Your task to perform on an android device: open app "Calculator" Image 0: 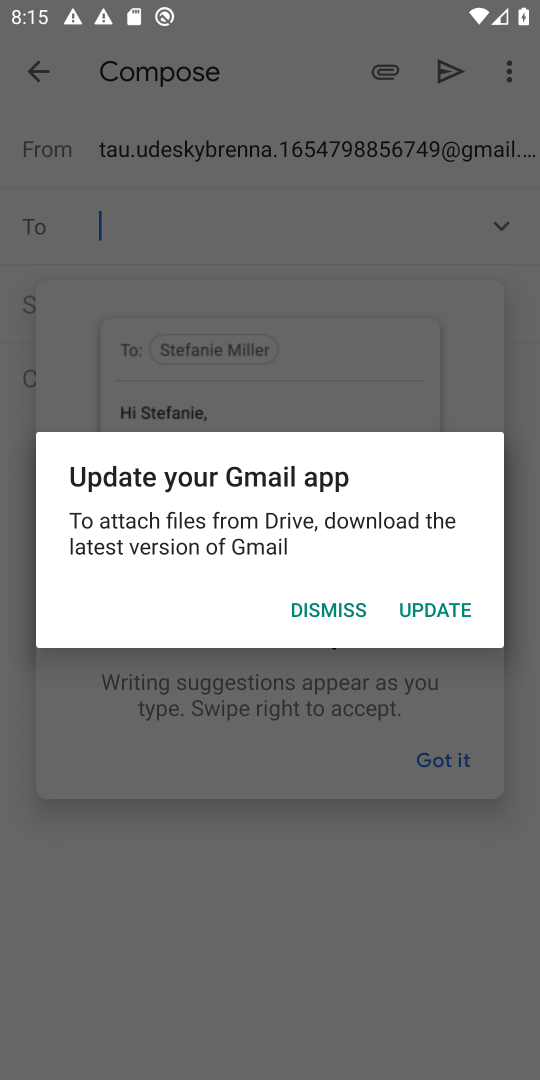
Step 0: press home button
Your task to perform on an android device: open app "Calculator" Image 1: 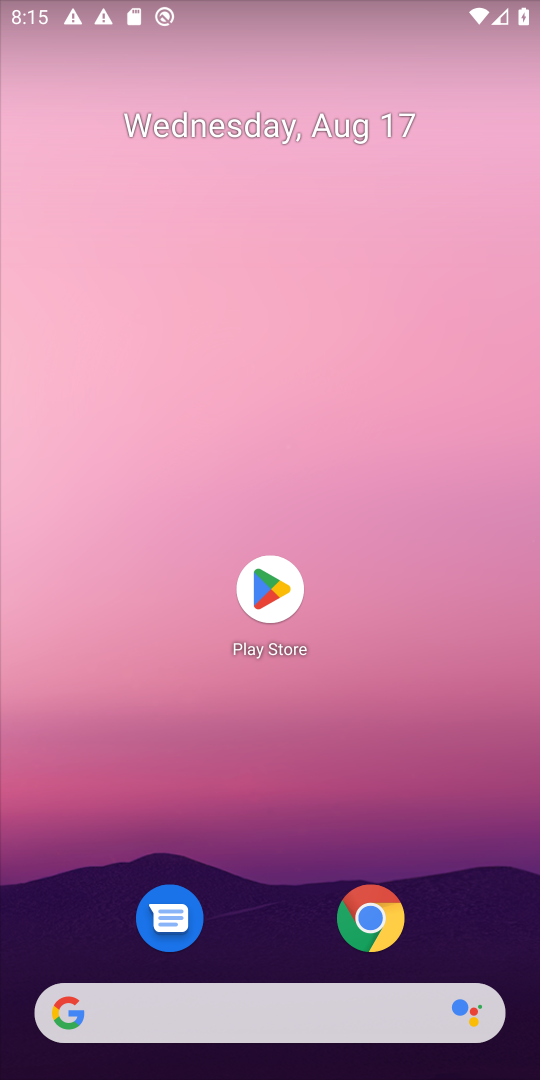
Step 1: click (276, 588)
Your task to perform on an android device: open app "Calculator" Image 2: 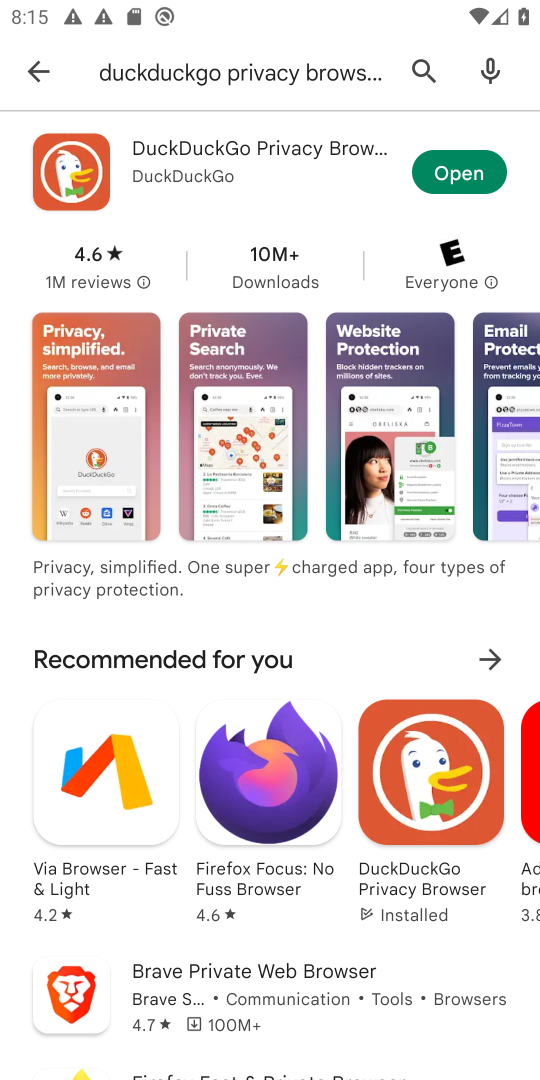
Step 2: click (429, 69)
Your task to perform on an android device: open app "Calculator" Image 3: 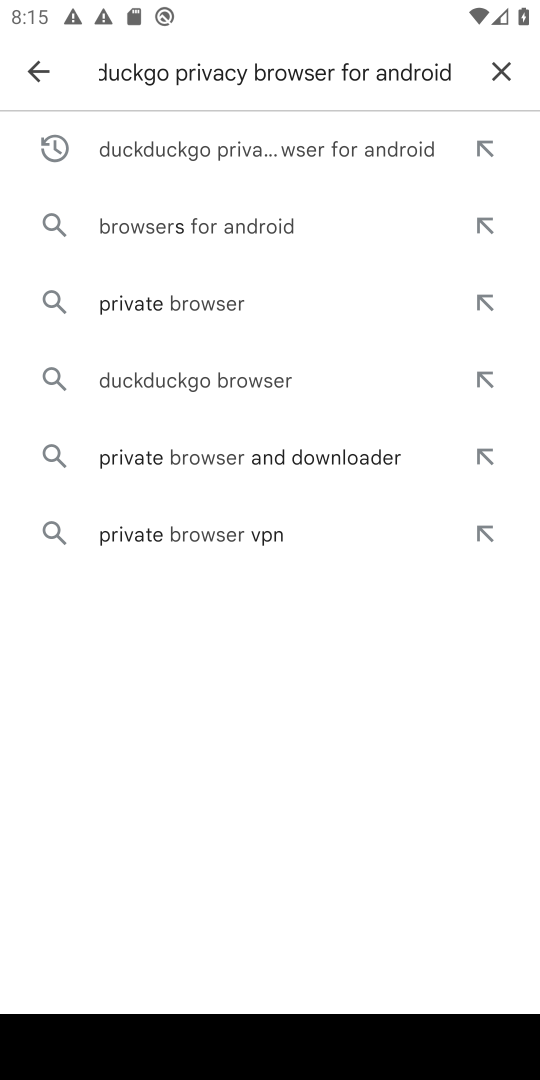
Step 3: click (495, 59)
Your task to perform on an android device: open app "Calculator" Image 4: 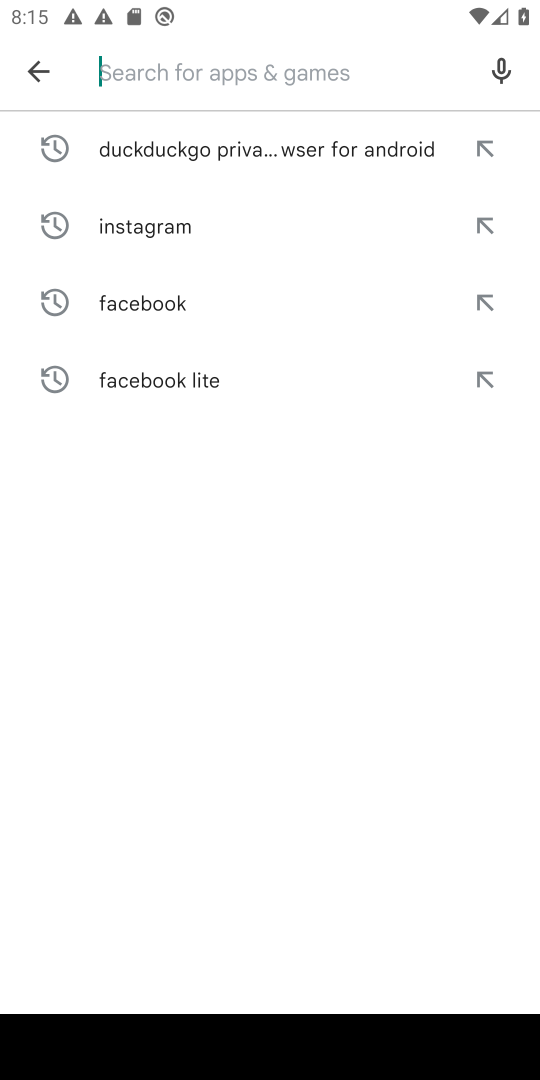
Step 4: type "Calculator"
Your task to perform on an android device: open app "Calculator" Image 5: 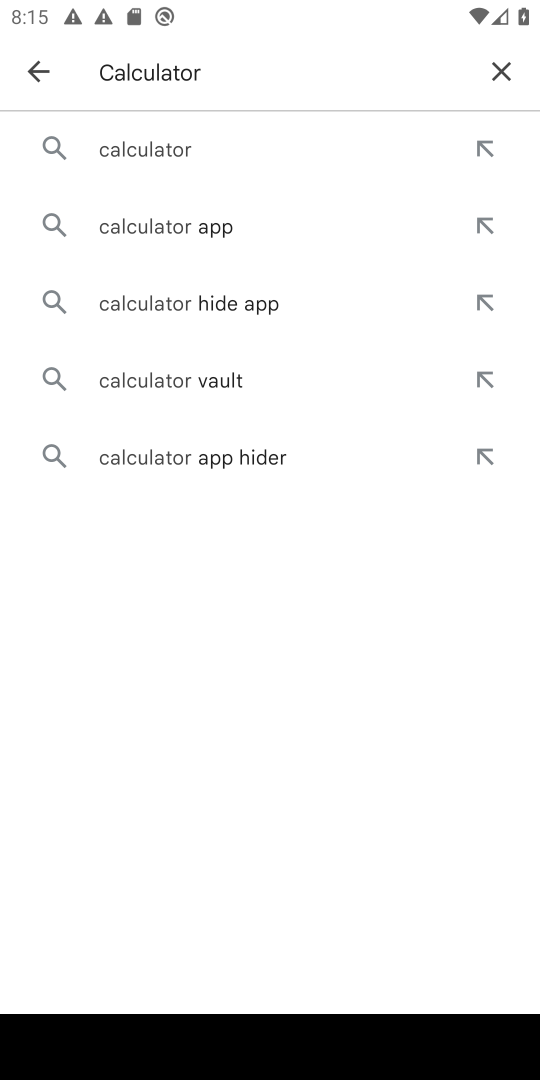
Step 5: click (136, 143)
Your task to perform on an android device: open app "Calculator" Image 6: 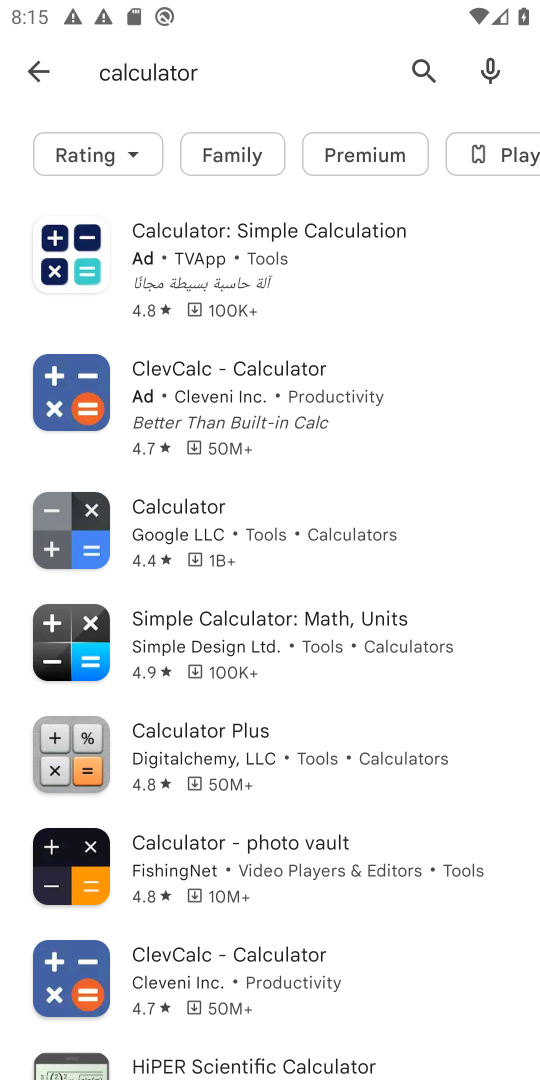
Step 6: drag from (362, 860) to (293, 838)
Your task to perform on an android device: open app "Calculator" Image 7: 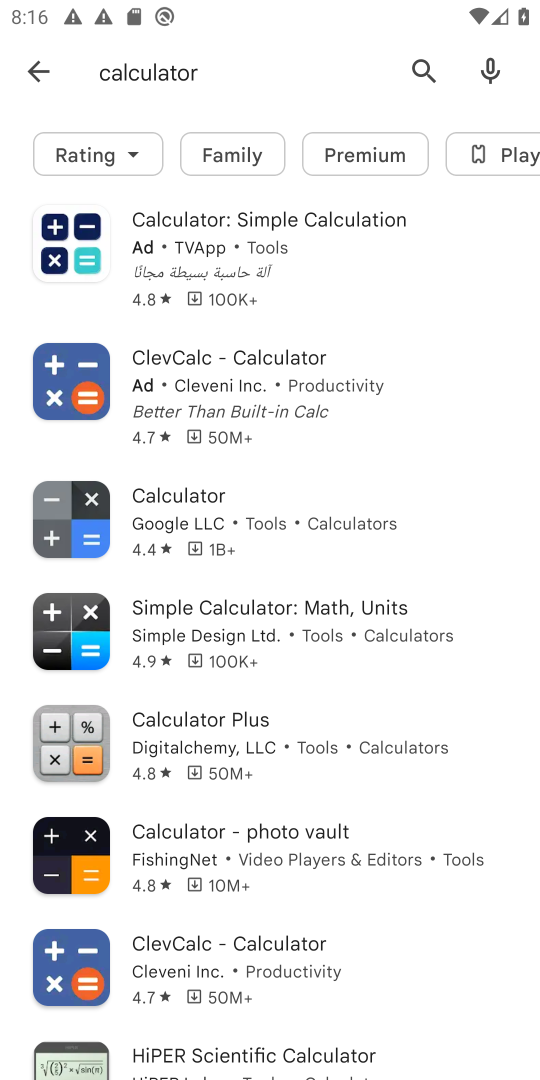
Step 7: click (179, 517)
Your task to perform on an android device: open app "Calculator" Image 8: 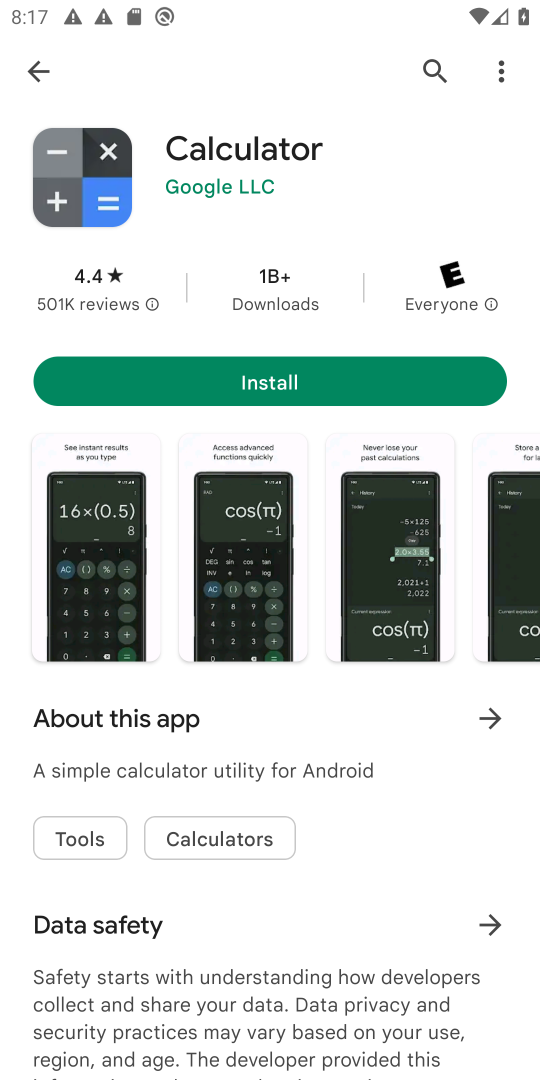
Step 8: task complete